Your task to perform on an android device: uninstall "DoorDash - Dasher" Image 0: 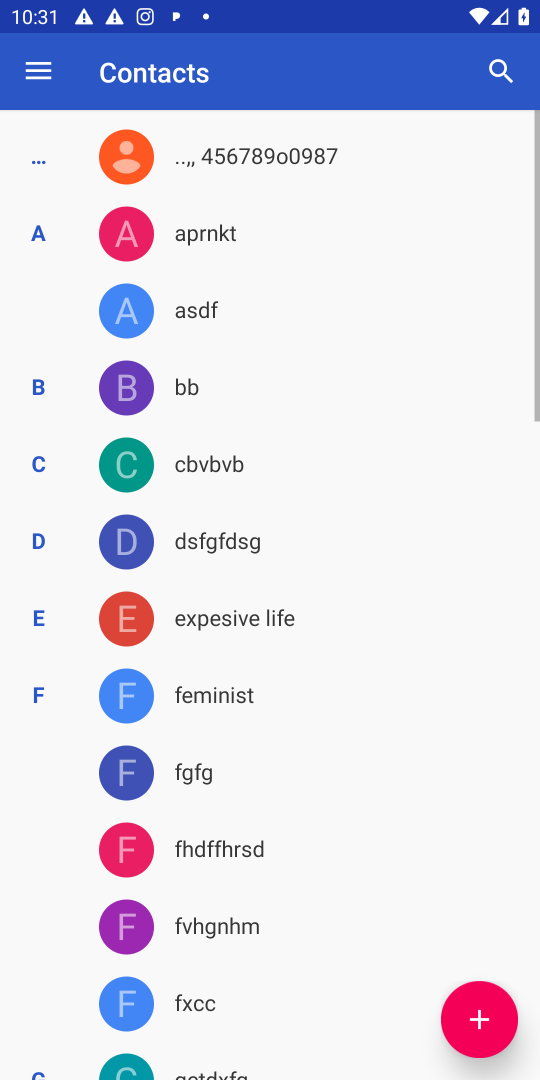
Step 0: press home button
Your task to perform on an android device: uninstall "DoorDash - Dasher" Image 1: 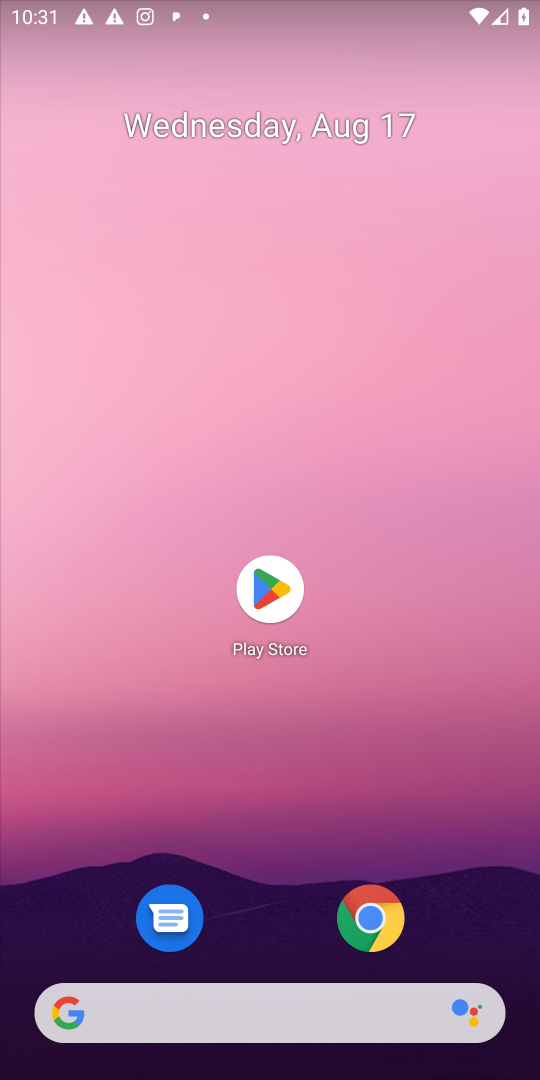
Step 1: click (264, 601)
Your task to perform on an android device: uninstall "DoorDash - Dasher" Image 2: 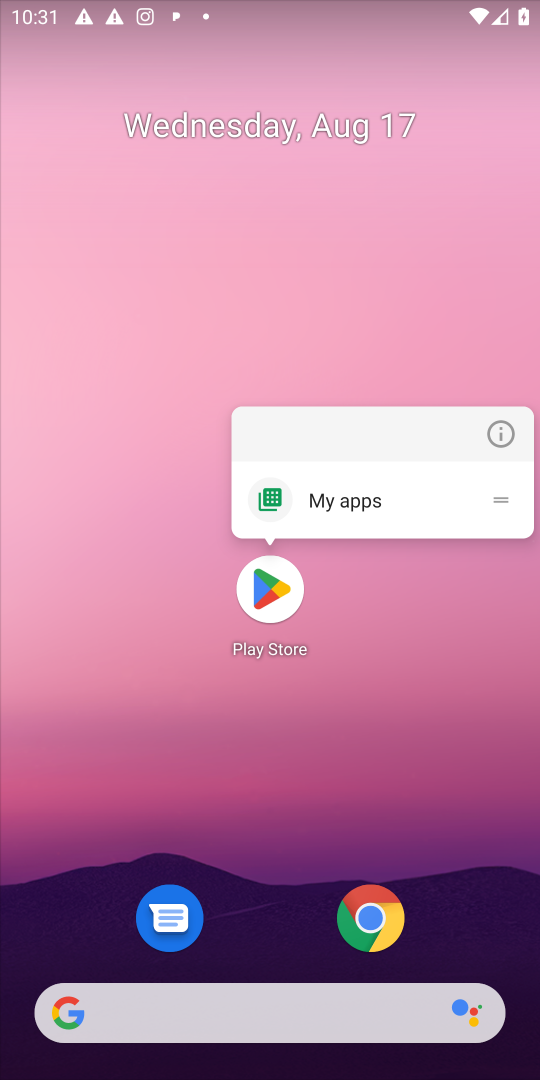
Step 2: click (264, 601)
Your task to perform on an android device: uninstall "DoorDash - Dasher" Image 3: 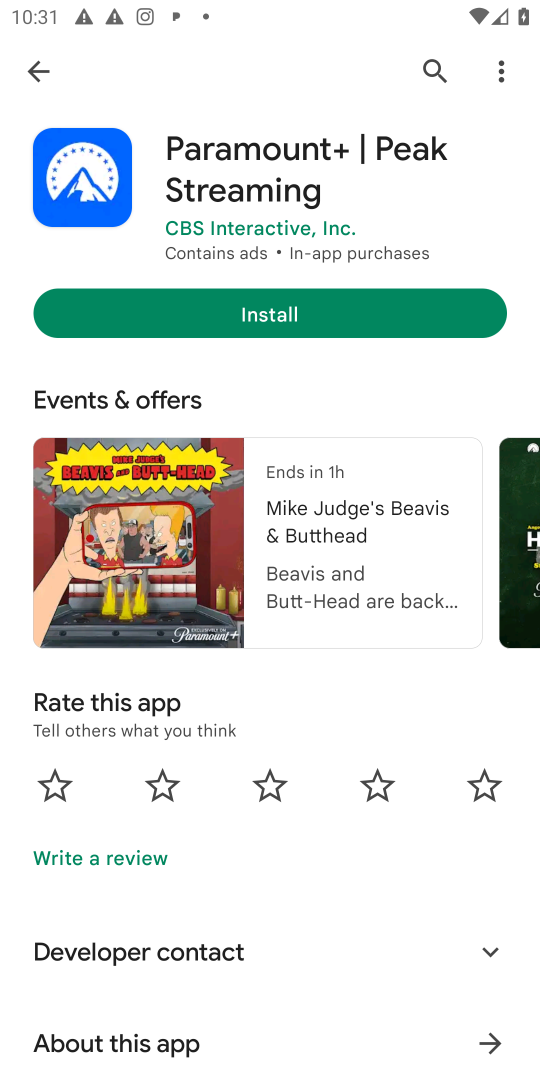
Step 3: click (425, 64)
Your task to perform on an android device: uninstall "DoorDash - Dasher" Image 4: 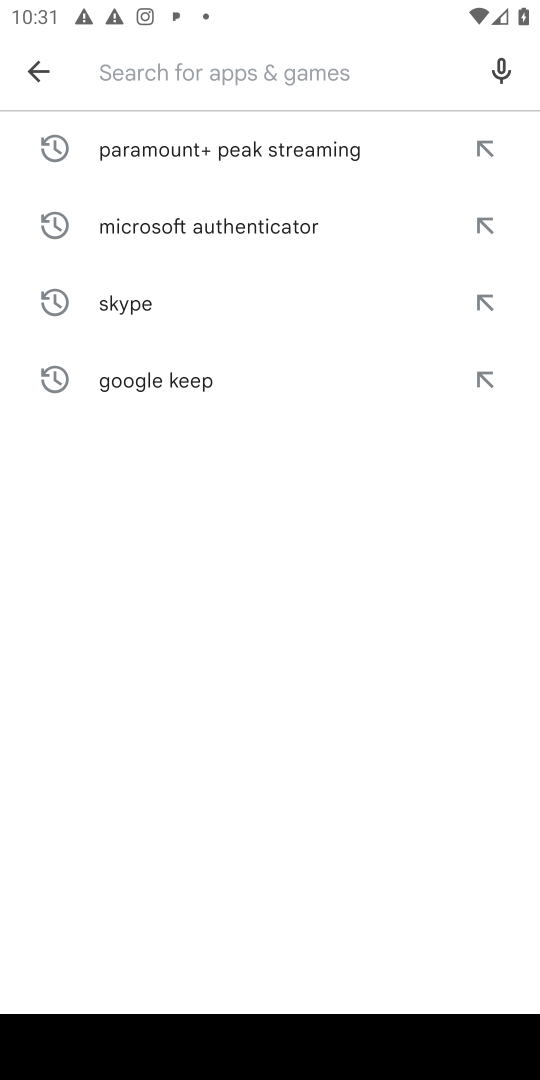
Step 4: type "DoorDash - Dasher"
Your task to perform on an android device: uninstall "DoorDash - Dasher" Image 5: 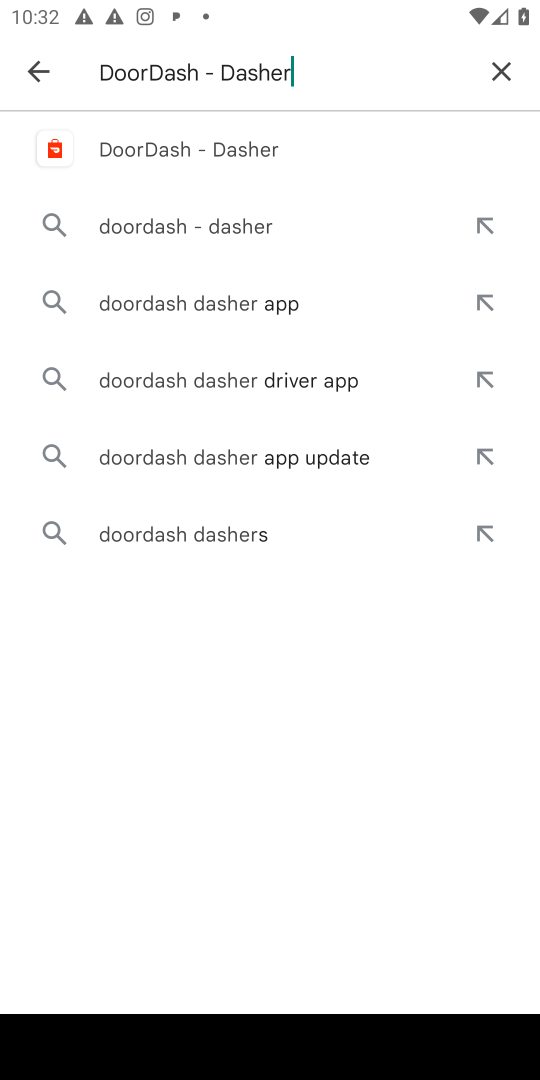
Step 5: click (233, 152)
Your task to perform on an android device: uninstall "DoorDash - Dasher" Image 6: 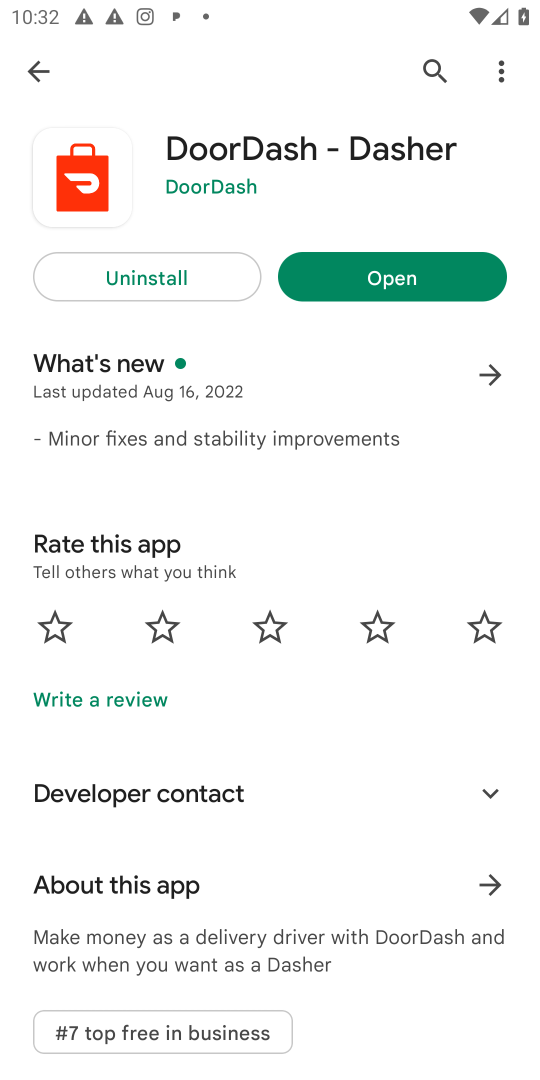
Step 6: click (164, 279)
Your task to perform on an android device: uninstall "DoorDash - Dasher" Image 7: 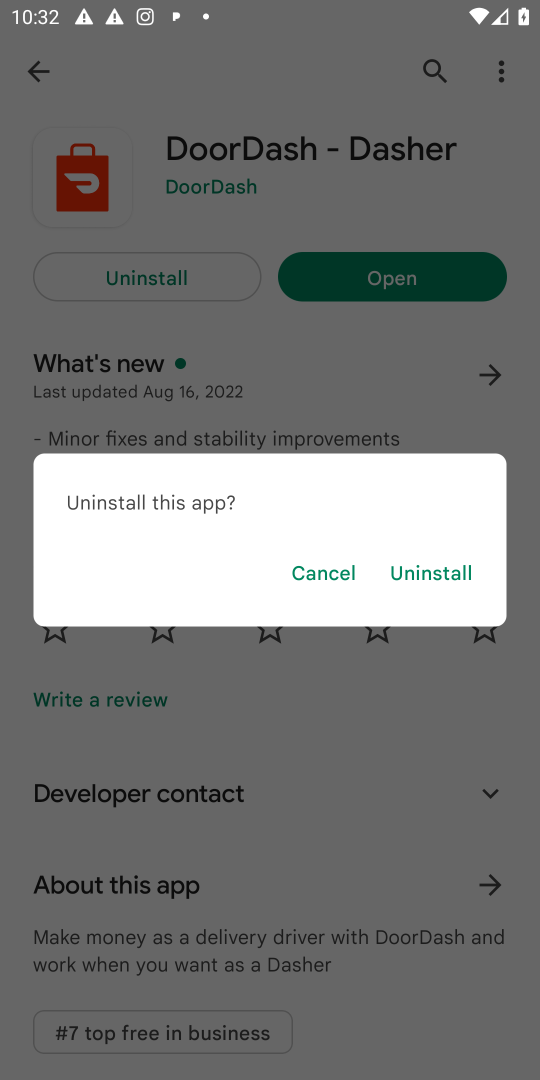
Step 7: click (441, 574)
Your task to perform on an android device: uninstall "DoorDash - Dasher" Image 8: 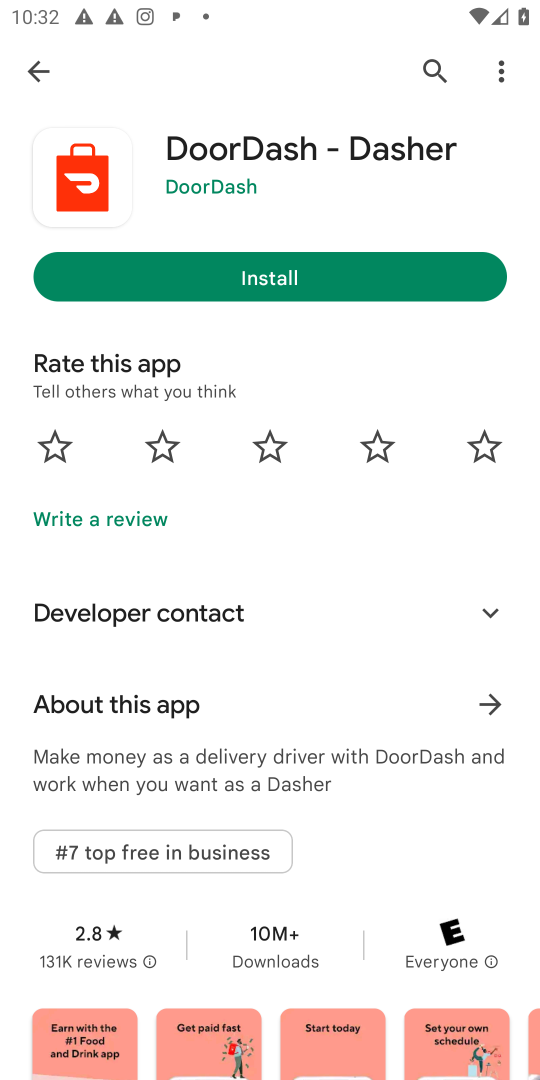
Step 8: task complete